Your task to perform on an android device: Go to wifi settings Image 0: 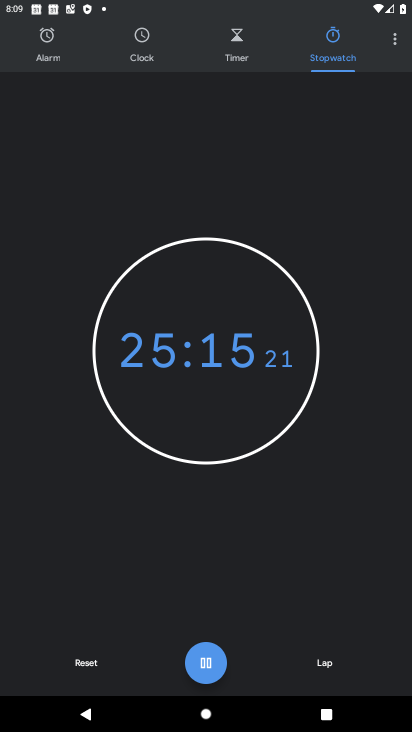
Step 0: press home button
Your task to perform on an android device: Go to wifi settings Image 1: 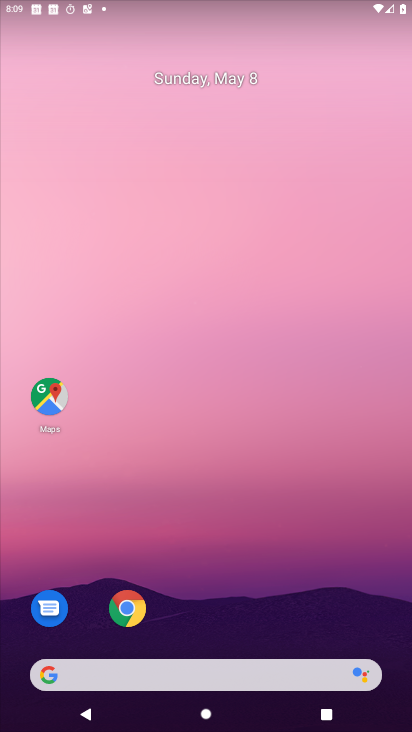
Step 1: drag from (203, 597) to (209, 206)
Your task to perform on an android device: Go to wifi settings Image 2: 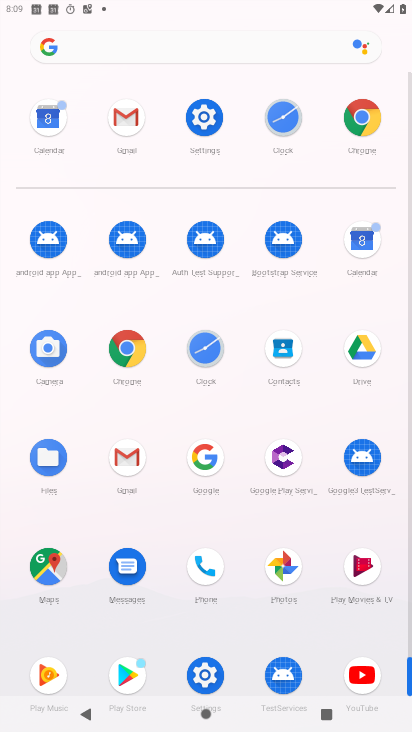
Step 2: click (217, 123)
Your task to perform on an android device: Go to wifi settings Image 3: 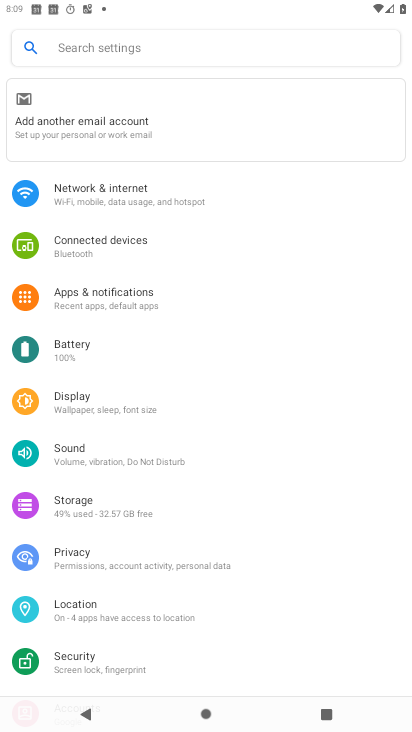
Step 3: click (103, 207)
Your task to perform on an android device: Go to wifi settings Image 4: 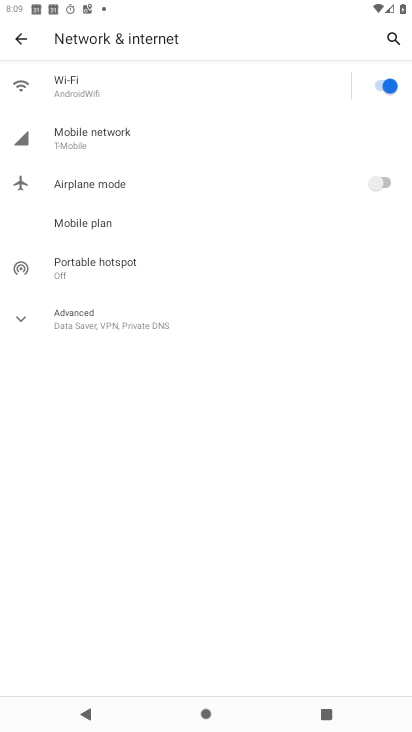
Step 4: click (153, 81)
Your task to perform on an android device: Go to wifi settings Image 5: 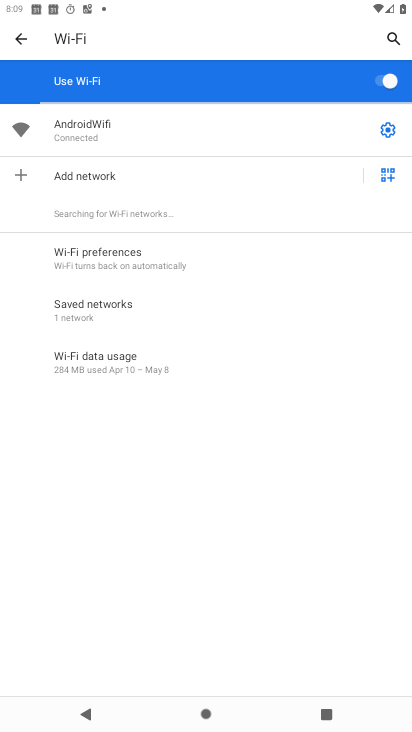
Step 5: click (153, 81)
Your task to perform on an android device: Go to wifi settings Image 6: 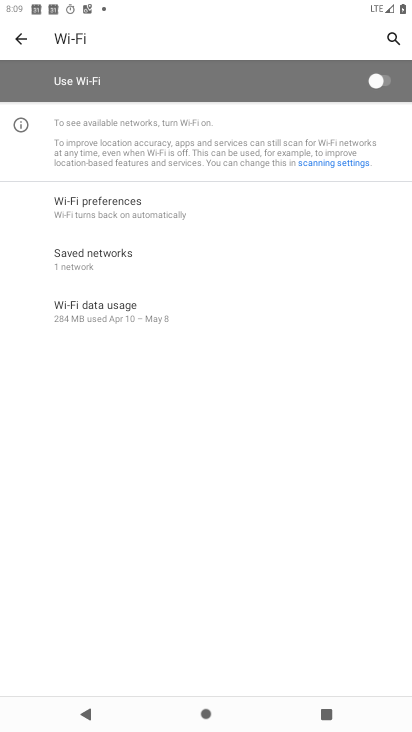
Step 6: click (154, 82)
Your task to perform on an android device: Go to wifi settings Image 7: 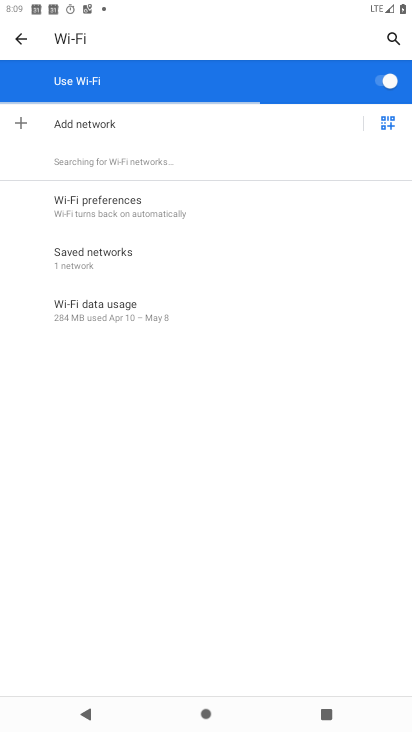
Step 7: task complete